Your task to perform on an android device: turn on wifi Image 0: 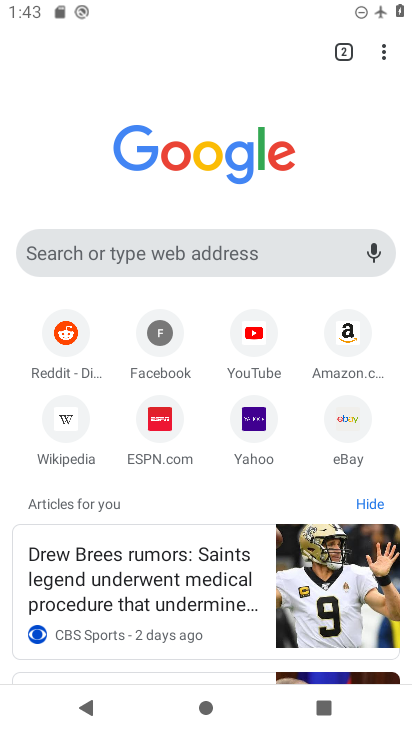
Step 0: press home button
Your task to perform on an android device: turn on wifi Image 1: 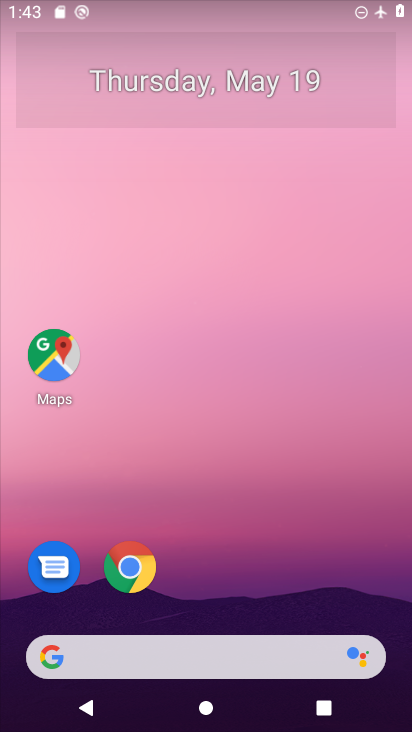
Step 1: drag from (281, 494) to (290, 87)
Your task to perform on an android device: turn on wifi Image 2: 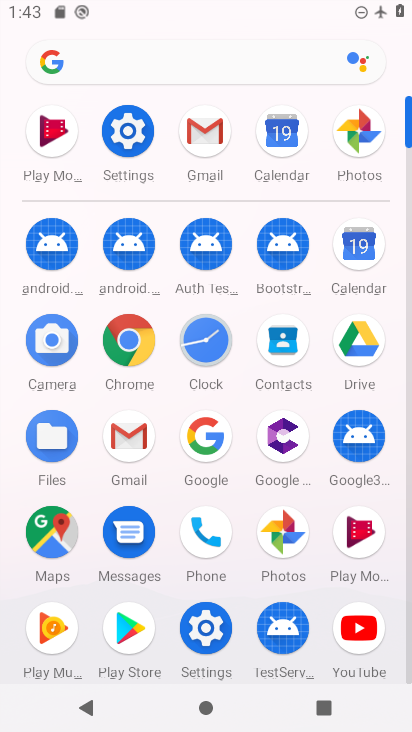
Step 2: click (122, 126)
Your task to perform on an android device: turn on wifi Image 3: 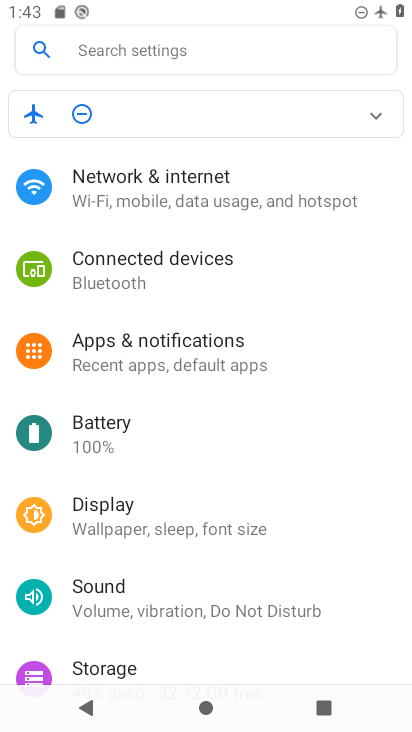
Step 3: click (149, 182)
Your task to perform on an android device: turn on wifi Image 4: 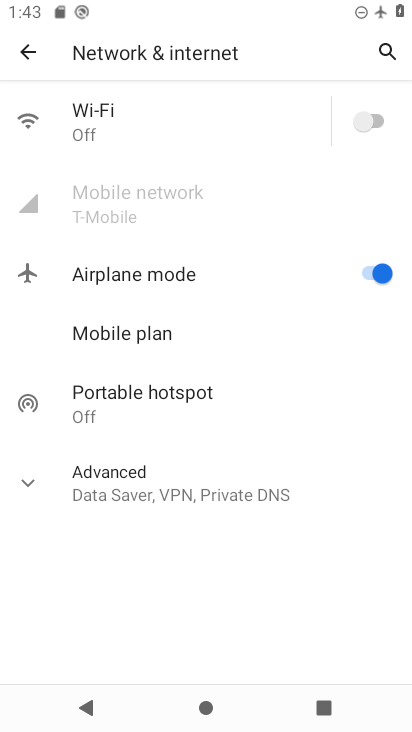
Step 4: click (371, 117)
Your task to perform on an android device: turn on wifi Image 5: 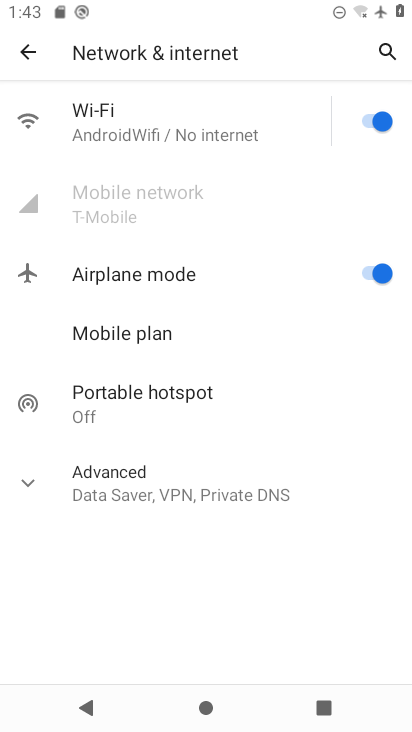
Step 5: task complete